Your task to perform on an android device: Open the Play Movies app and select the watchlist tab. Image 0: 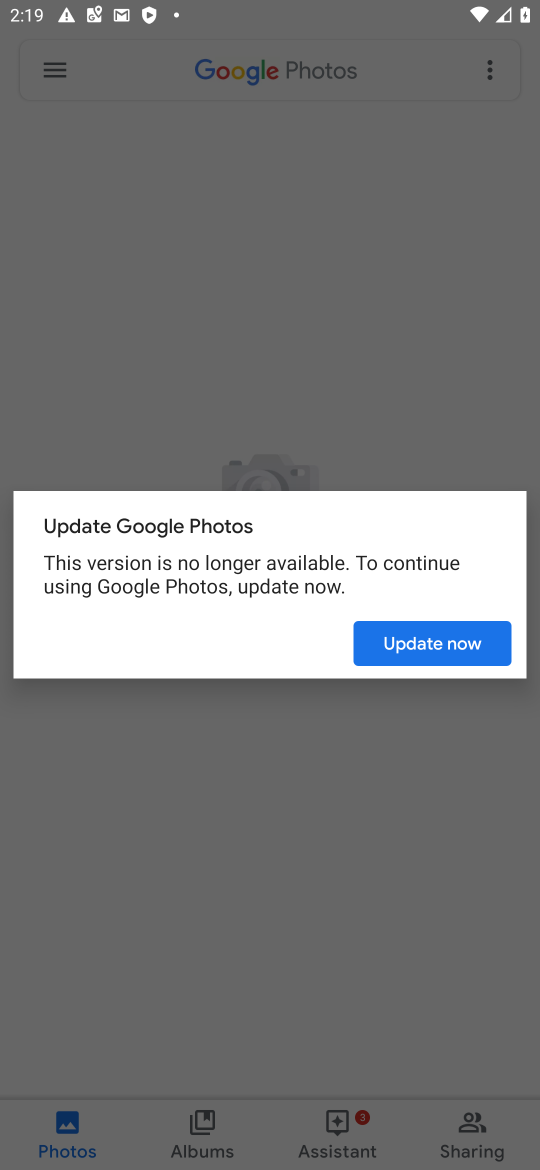
Step 0: press home button
Your task to perform on an android device: Open the Play Movies app and select the watchlist tab. Image 1: 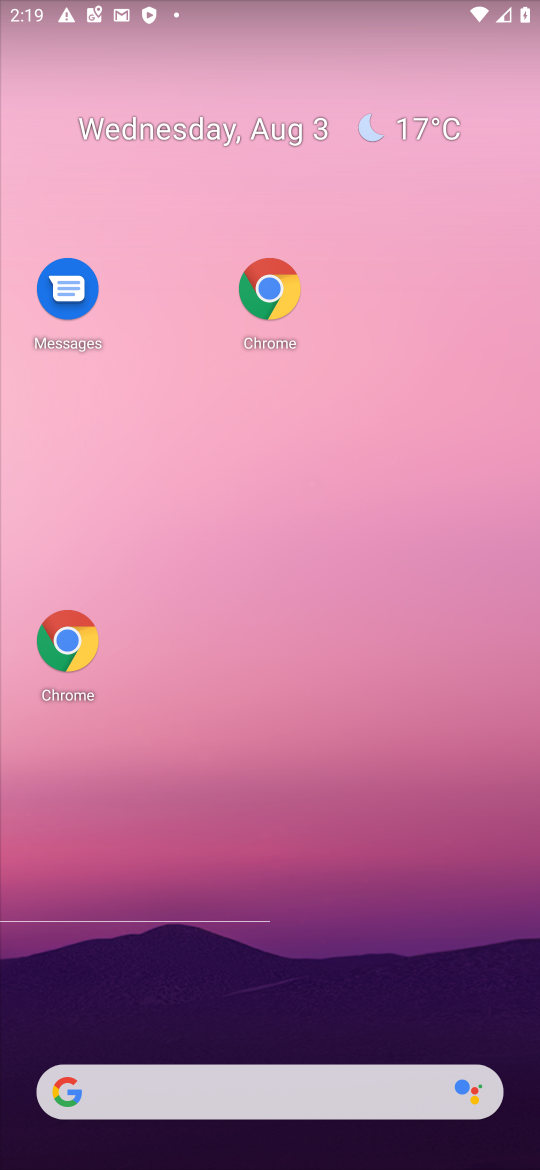
Step 1: drag from (309, 999) to (253, 241)
Your task to perform on an android device: Open the Play Movies app and select the watchlist tab. Image 2: 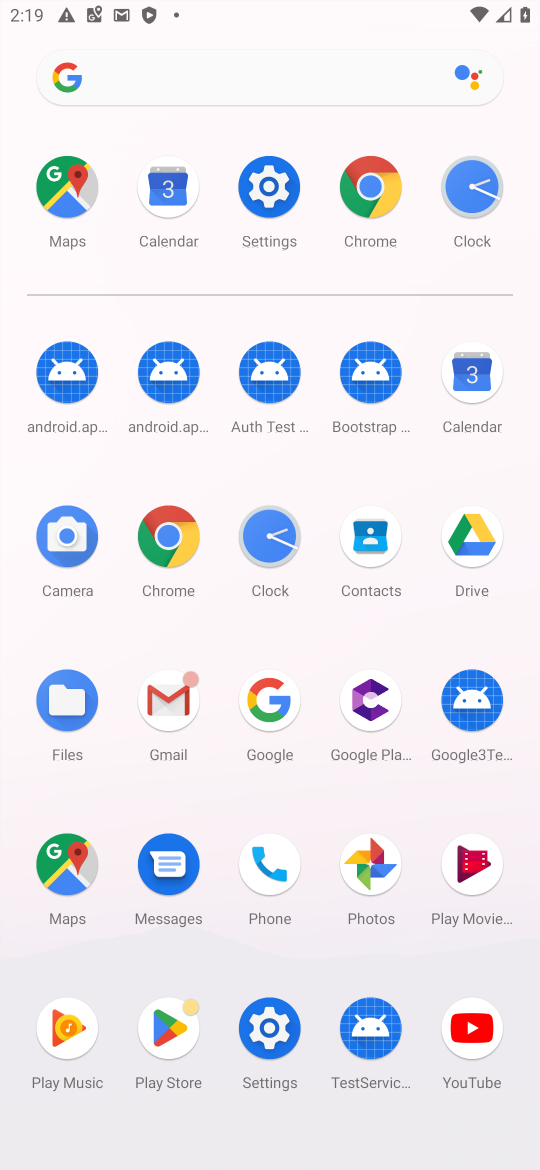
Step 2: click (475, 874)
Your task to perform on an android device: Open the Play Movies app and select the watchlist tab. Image 3: 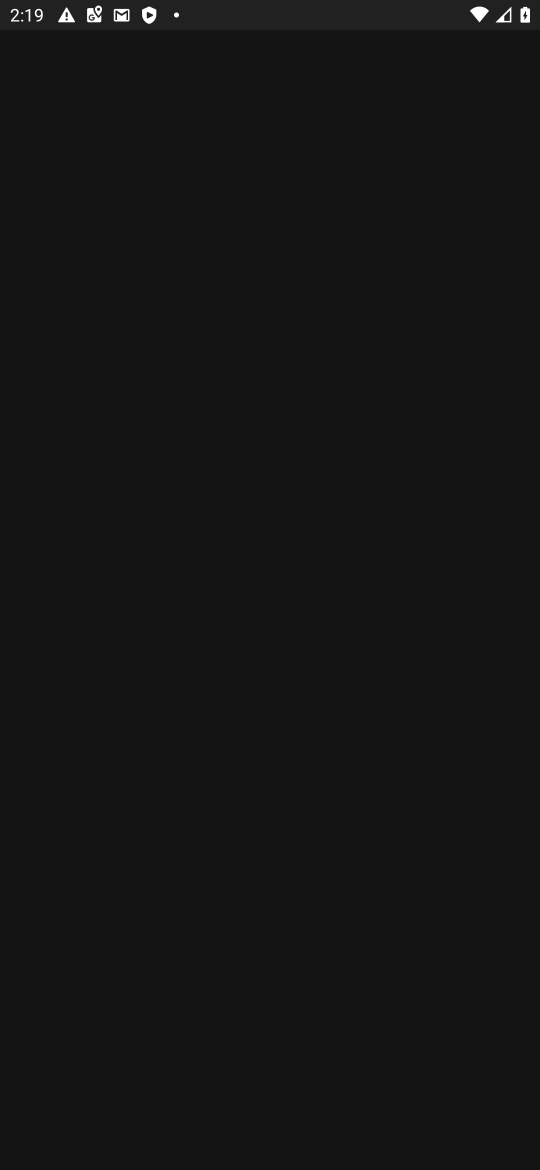
Step 3: click (475, 874)
Your task to perform on an android device: Open the Play Movies app and select the watchlist tab. Image 4: 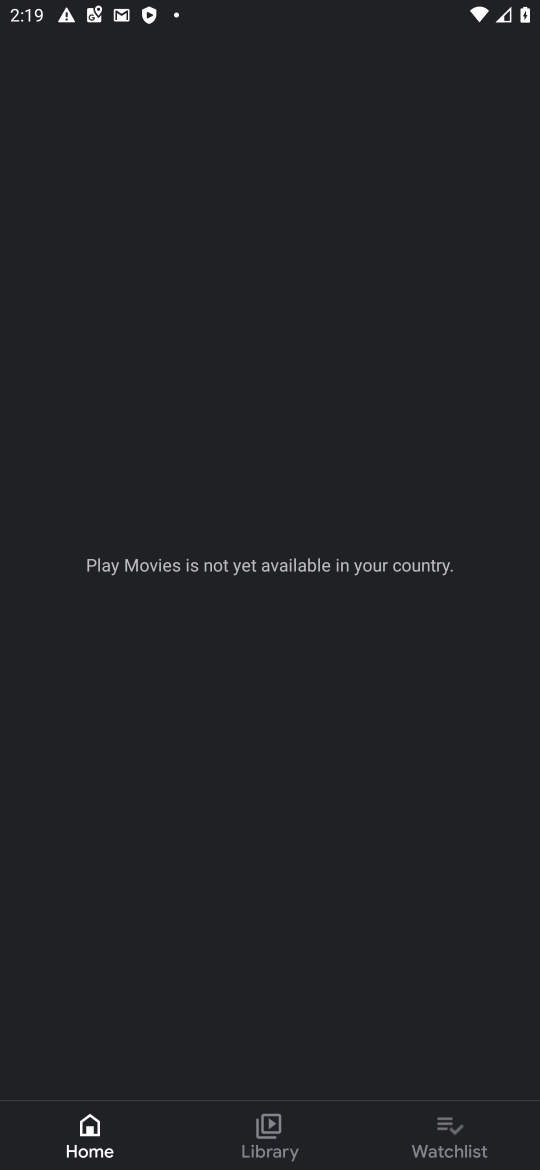
Step 4: click (470, 1151)
Your task to perform on an android device: Open the Play Movies app and select the watchlist tab. Image 5: 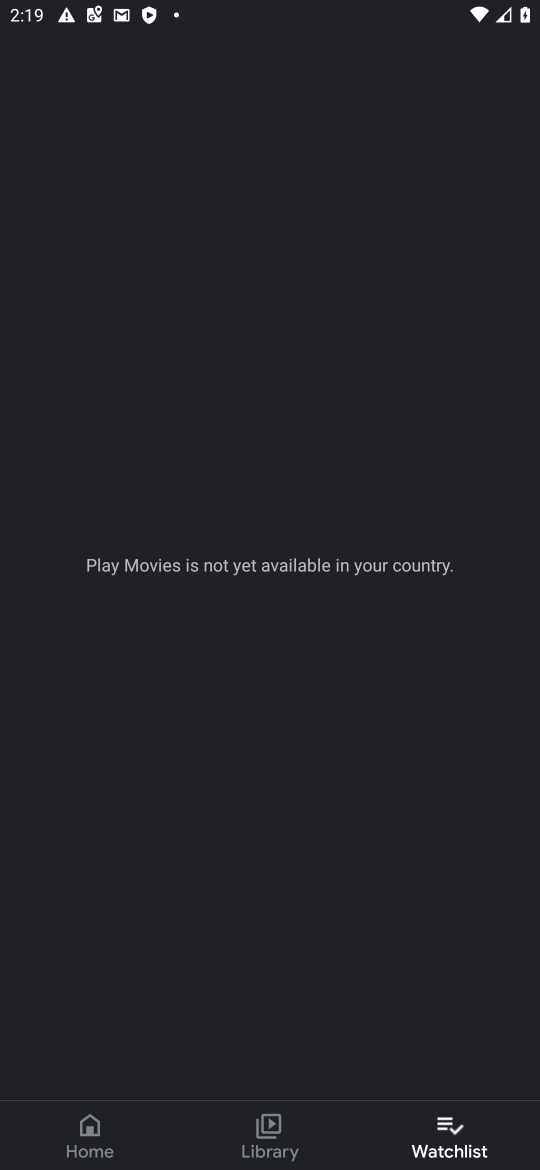
Step 5: task complete